Your task to perform on an android device: Go to settings Image 0: 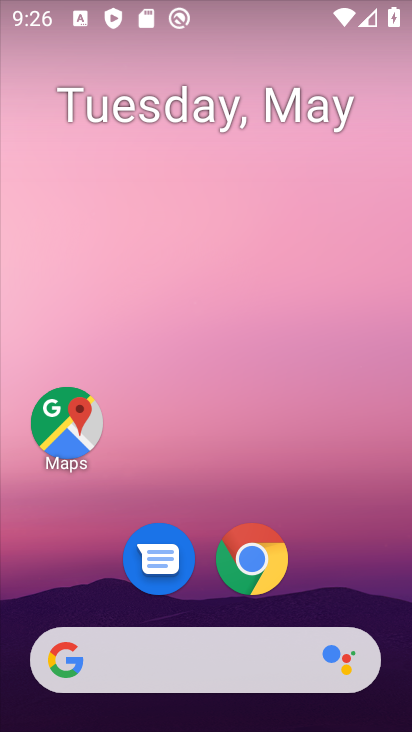
Step 0: drag from (220, 691) to (270, 85)
Your task to perform on an android device: Go to settings Image 1: 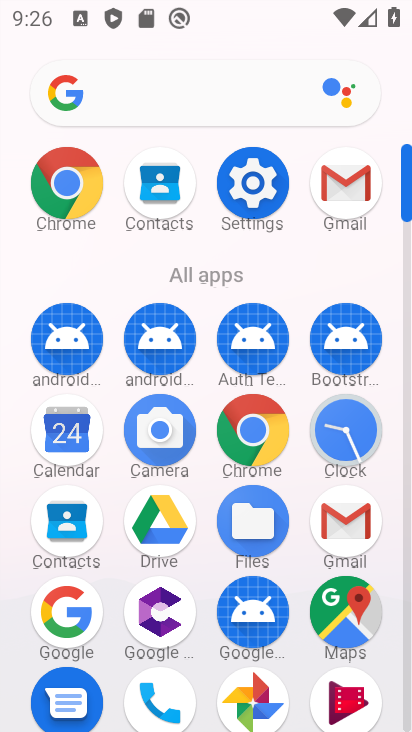
Step 1: click (250, 161)
Your task to perform on an android device: Go to settings Image 2: 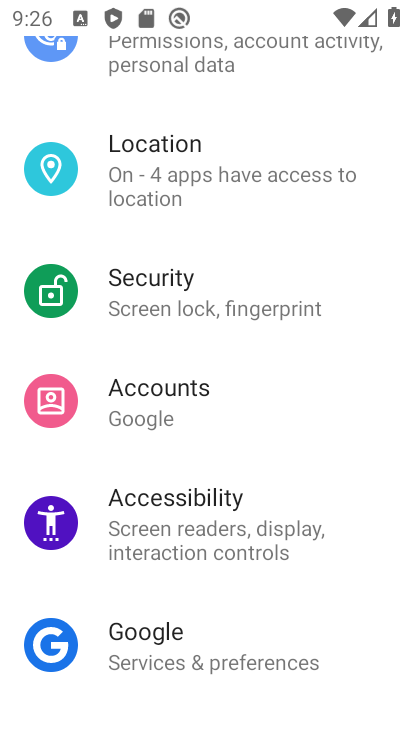
Step 2: task complete